Your task to perform on an android device: Open the calendar app, open the side menu, and click the "Day" option Image 0: 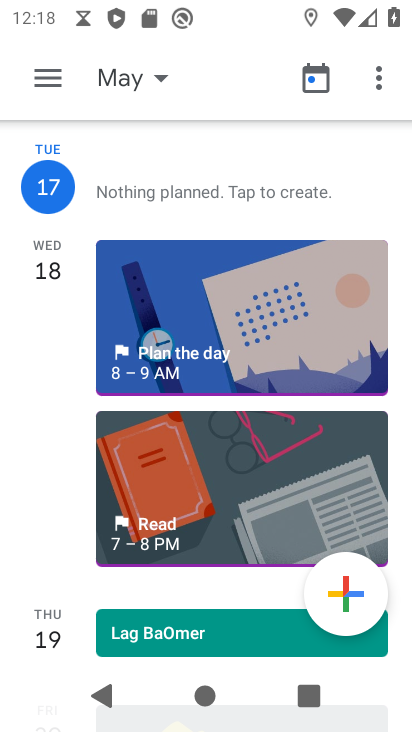
Step 0: click (47, 71)
Your task to perform on an android device: Open the calendar app, open the side menu, and click the "Day" option Image 1: 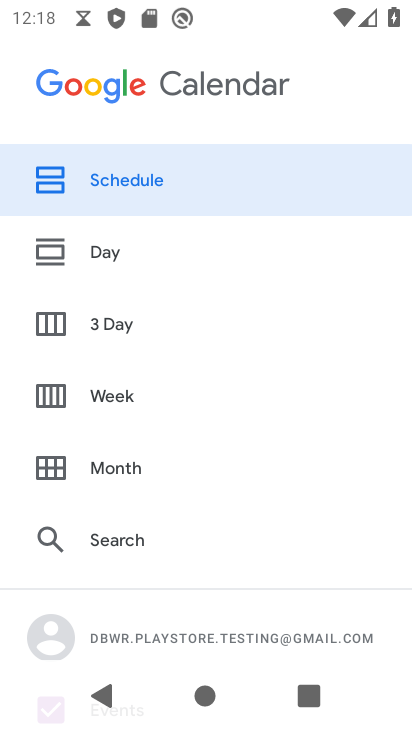
Step 1: click (119, 262)
Your task to perform on an android device: Open the calendar app, open the side menu, and click the "Day" option Image 2: 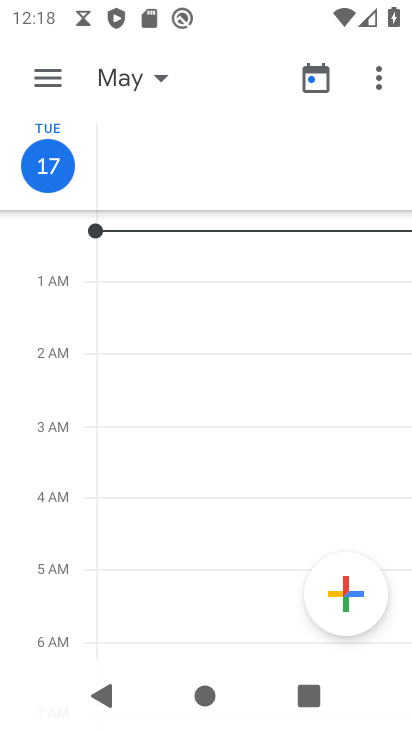
Step 2: task complete